Your task to perform on an android device: Check the news Image 0: 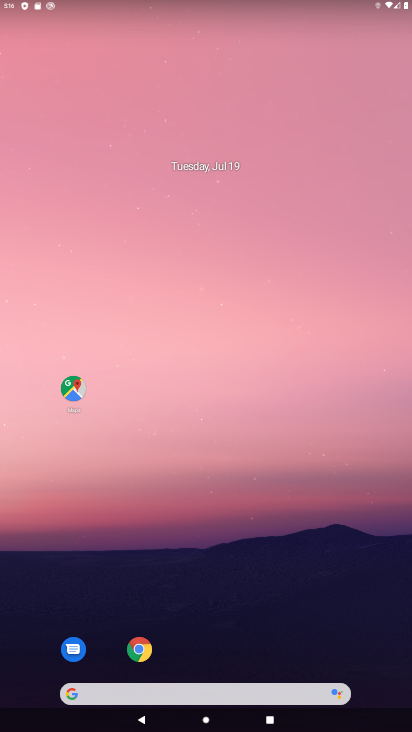
Step 0: drag from (253, 230) to (267, 138)
Your task to perform on an android device: Check the news Image 1: 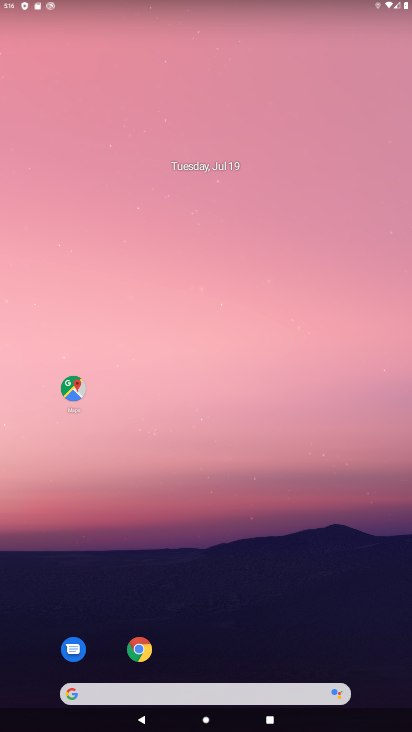
Step 1: drag from (283, 617) to (308, 104)
Your task to perform on an android device: Check the news Image 2: 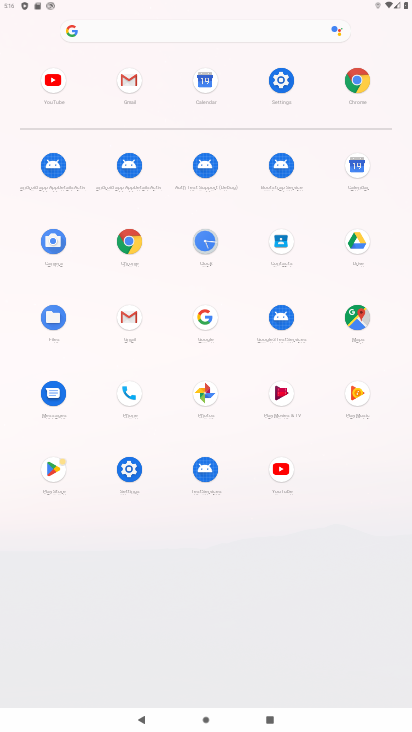
Step 2: drag from (272, 588) to (204, 63)
Your task to perform on an android device: Check the news Image 3: 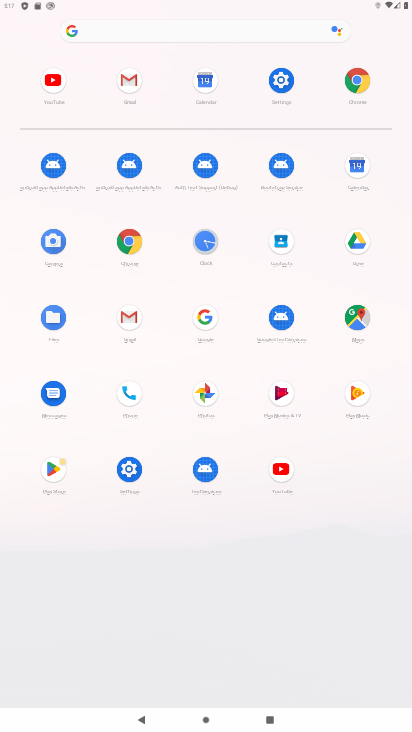
Step 3: click (351, 80)
Your task to perform on an android device: Check the news Image 4: 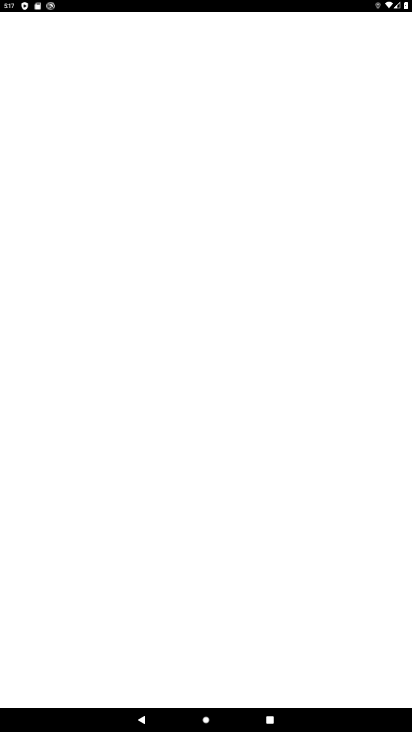
Step 4: click (353, 75)
Your task to perform on an android device: Check the news Image 5: 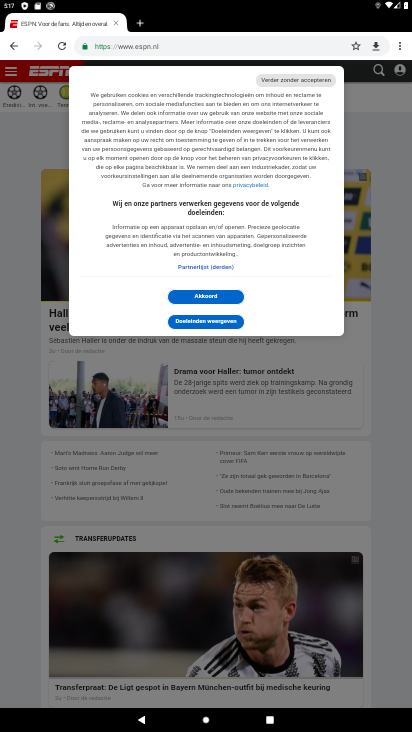
Step 5: click (234, 45)
Your task to perform on an android device: Check the news Image 6: 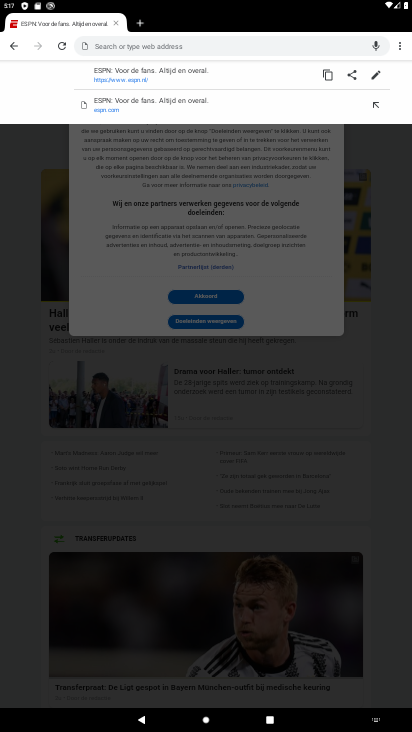
Step 6: type "news"
Your task to perform on an android device: Check the news Image 7: 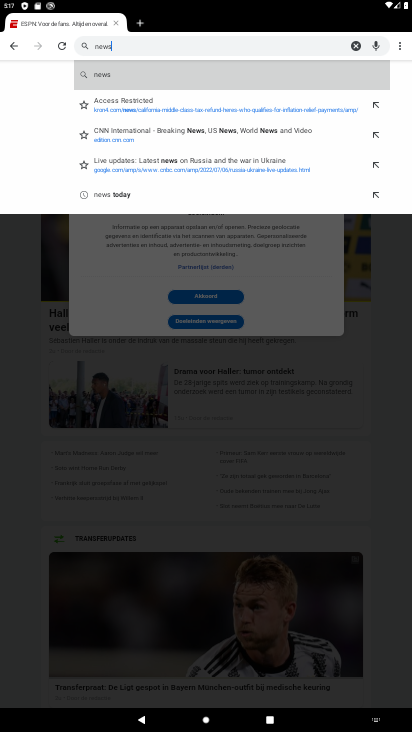
Step 7: click (222, 79)
Your task to perform on an android device: Check the news Image 8: 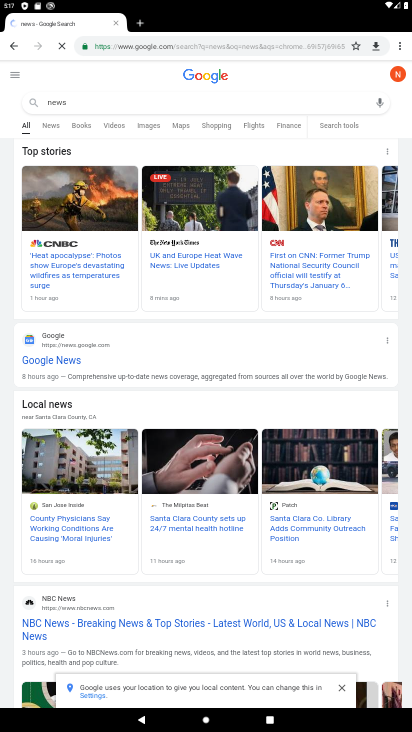
Step 8: click (59, 359)
Your task to perform on an android device: Check the news Image 9: 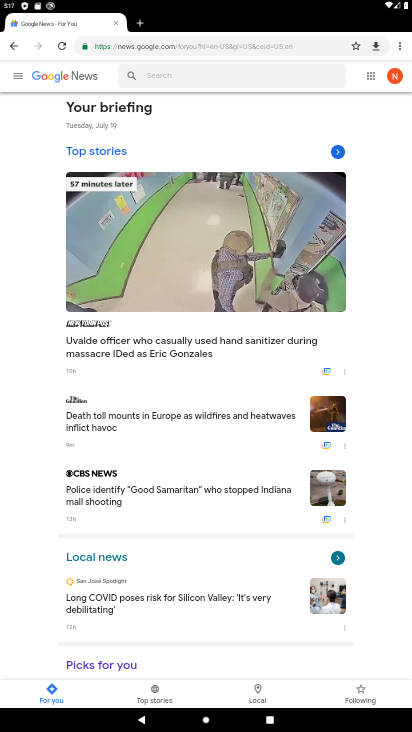
Step 9: task complete